Your task to perform on an android device: allow notifications from all sites in the chrome app Image 0: 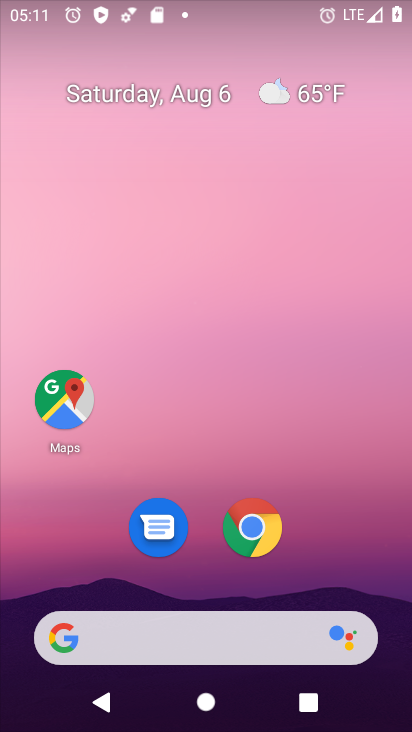
Step 0: drag from (163, 593) to (180, 333)
Your task to perform on an android device: allow notifications from all sites in the chrome app Image 1: 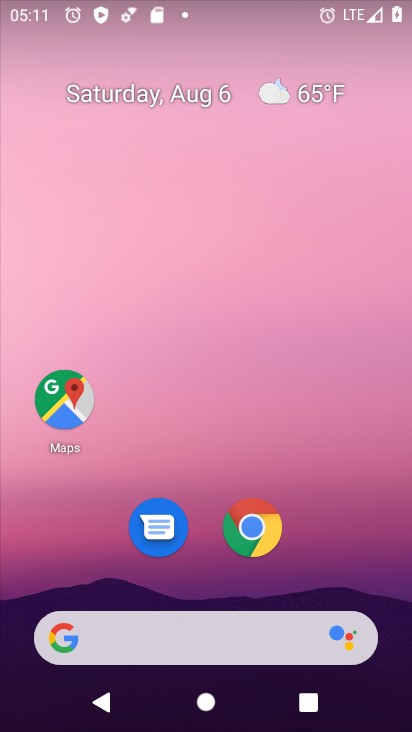
Step 1: drag from (233, 630) to (211, 164)
Your task to perform on an android device: allow notifications from all sites in the chrome app Image 2: 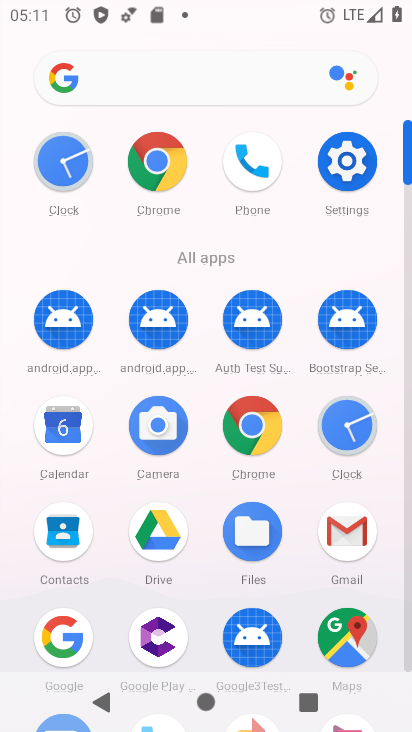
Step 2: click (177, 152)
Your task to perform on an android device: allow notifications from all sites in the chrome app Image 3: 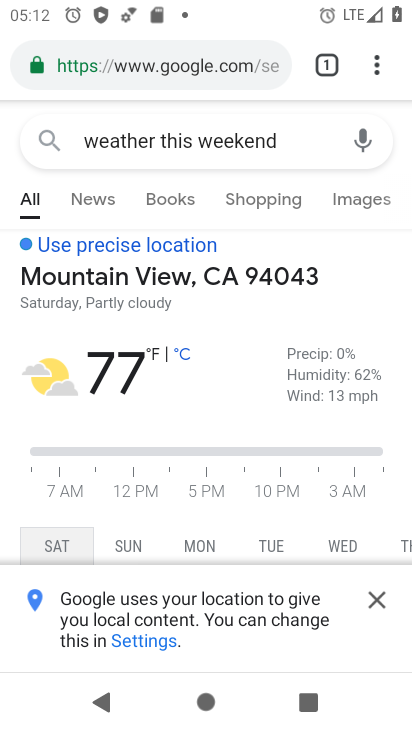
Step 3: drag from (378, 75) to (189, 575)
Your task to perform on an android device: allow notifications from all sites in the chrome app Image 4: 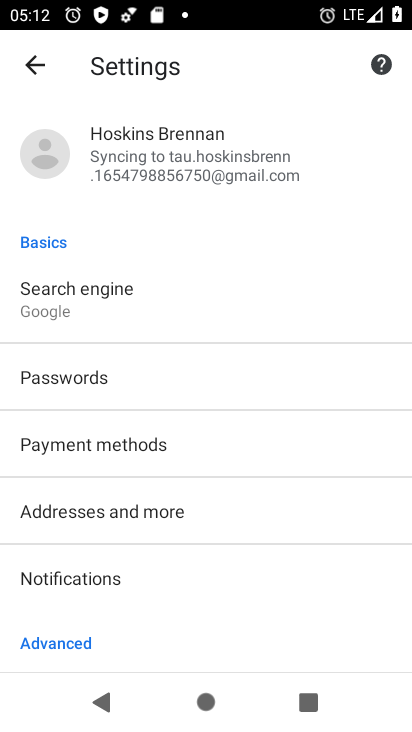
Step 4: drag from (189, 575) to (204, 176)
Your task to perform on an android device: allow notifications from all sites in the chrome app Image 5: 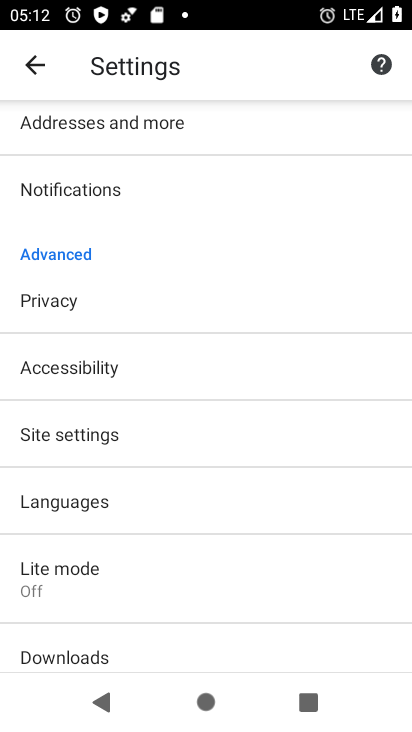
Step 5: click (127, 438)
Your task to perform on an android device: allow notifications from all sites in the chrome app Image 6: 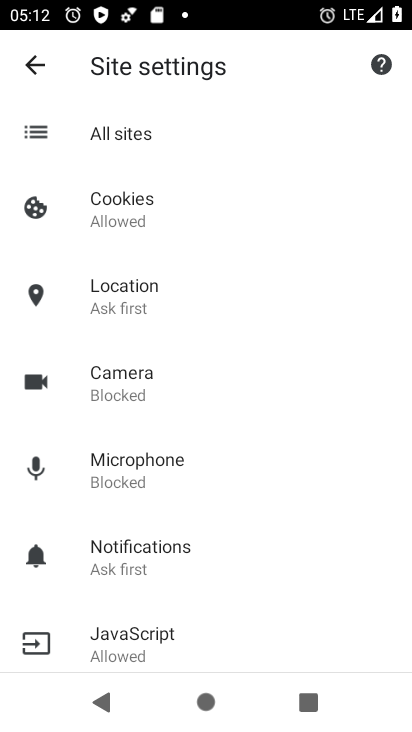
Step 6: click (163, 564)
Your task to perform on an android device: allow notifications from all sites in the chrome app Image 7: 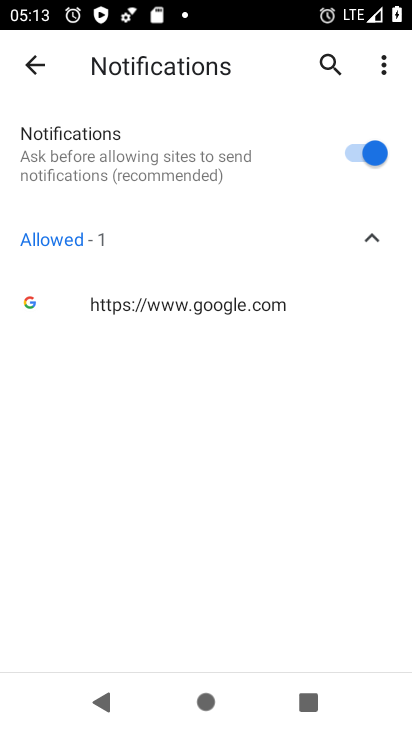
Step 7: task complete